Your task to perform on an android device: turn on notifications settings in the gmail app Image 0: 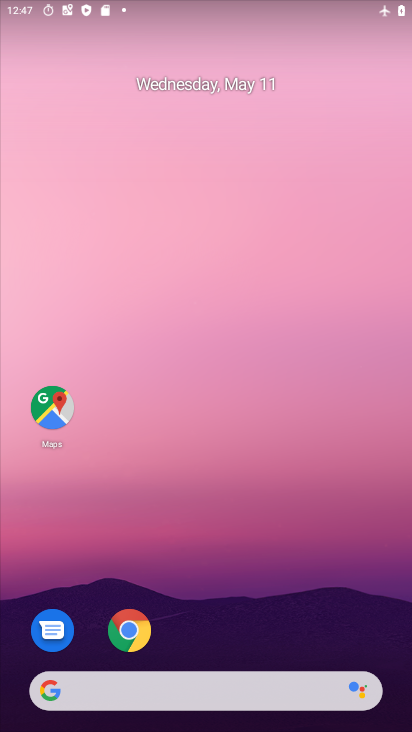
Step 0: drag from (273, 220) to (29, 365)
Your task to perform on an android device: turn on notifications settings in the gmail app Image 1: 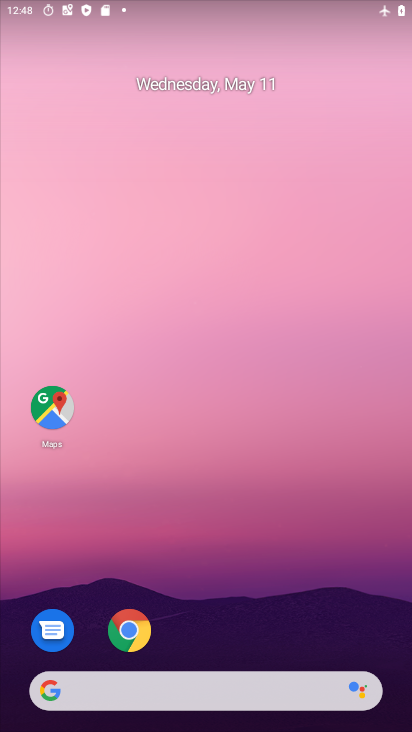
Step 1: click (202, 309)
Your task to perform on an android device: turn on notifications settings in the gmail app Image 2: 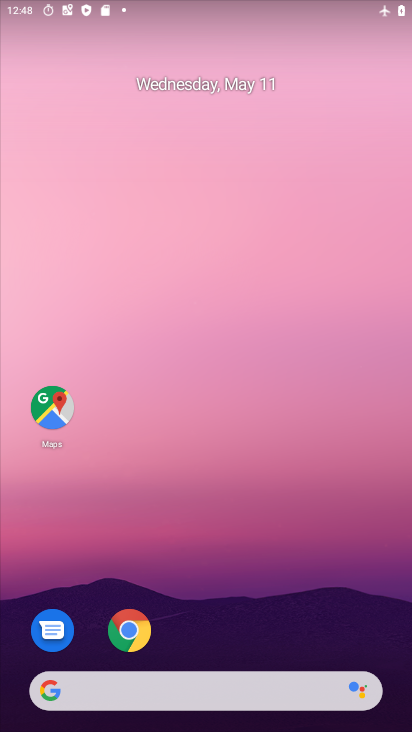
Step 2: drag from (297, 598) to (231, 6)
Your task to perform on an android device: turn on notifications settings in the gmail app Image 3: 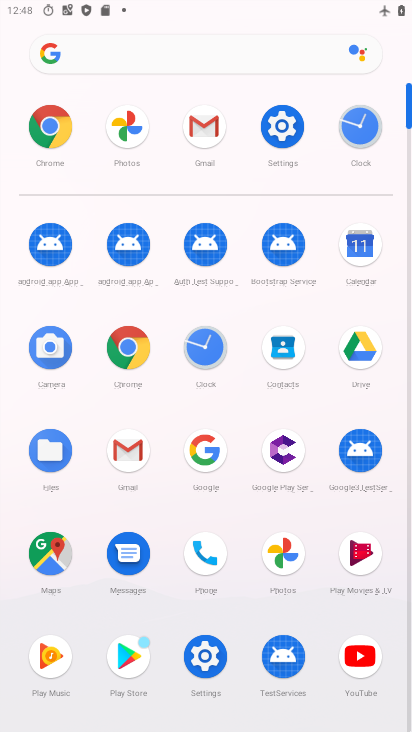
Step 3: click (220, 133)
Your task to perform on an android device: turn on notifications settings in the gmail app Image 4: 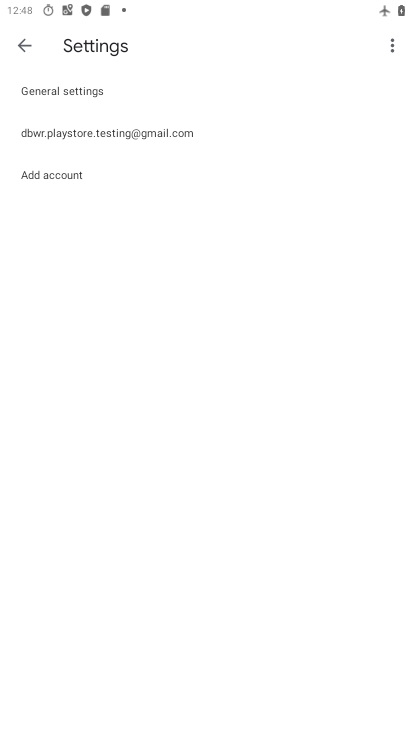
Step 4: click (81, 131)
Your task to perform on an android device: turn on notifications settings in the gmail app Image 5: 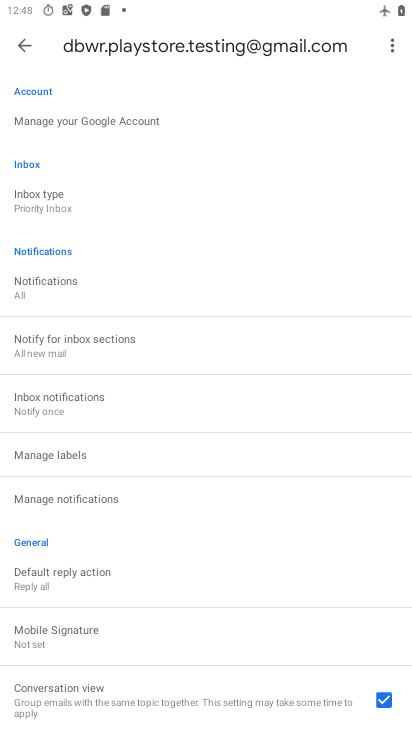
Step 5: click (112, 497)
Your task to perform on an android device: turn on notifications settings in the gmail app Image 6: 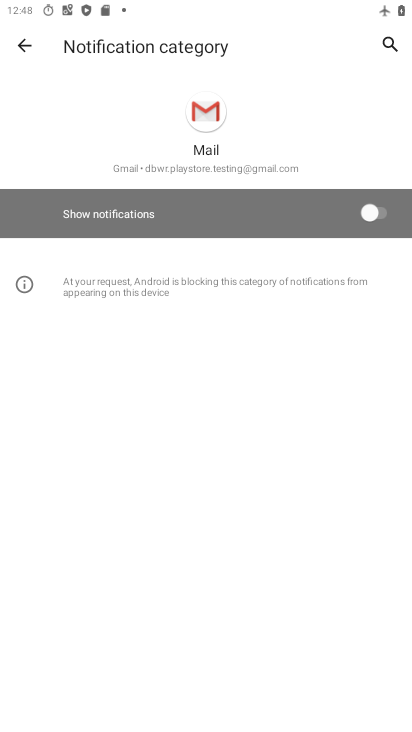
Step 6: click (337, 215)
Your task to perform on an android device: turn on notifications settings in the gmail app Image 7: 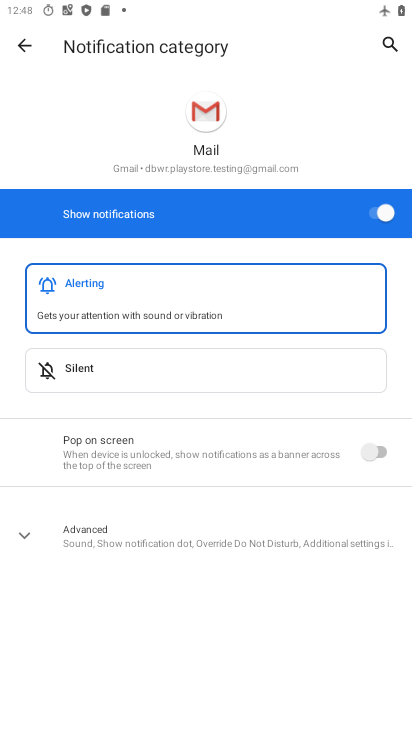
Step 7: task complete